Your task to perform on an android device: turn on notifications settings in the gmail app Image 0: 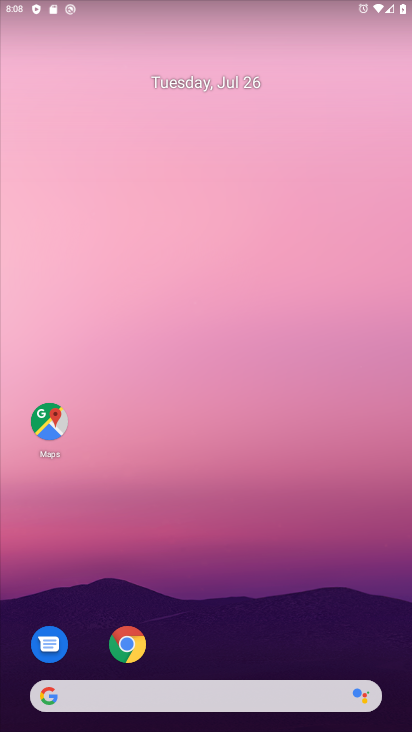
Step 0: drag from (259, 648) to (257, 303)
Your task to perform on an android device: turn on notifications settings in the gmail app Image 1: 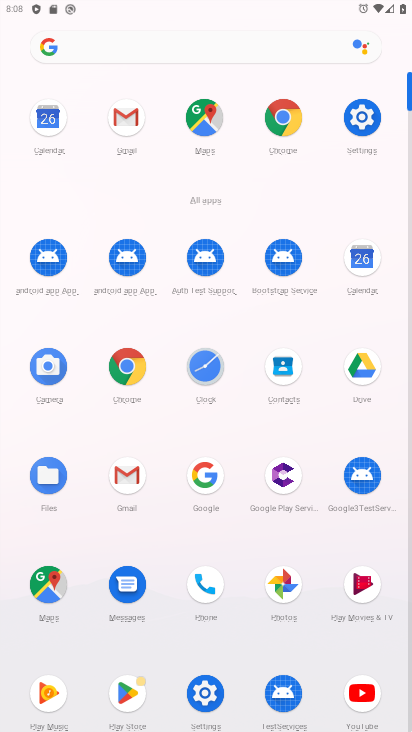
Step 1: click (112, 109)
Your task to perform on an android device: turn on notifications settings in the gmail app Image 2: 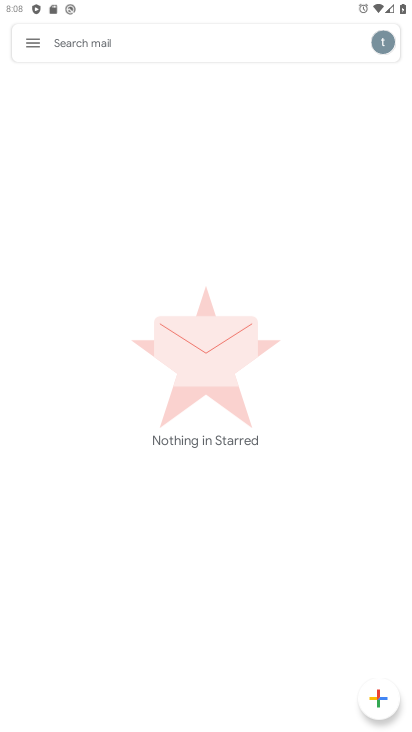
Step 2: click (23, 40)
Your task to perform on an android device: turn on notifications settings in the gmail app Image 3: 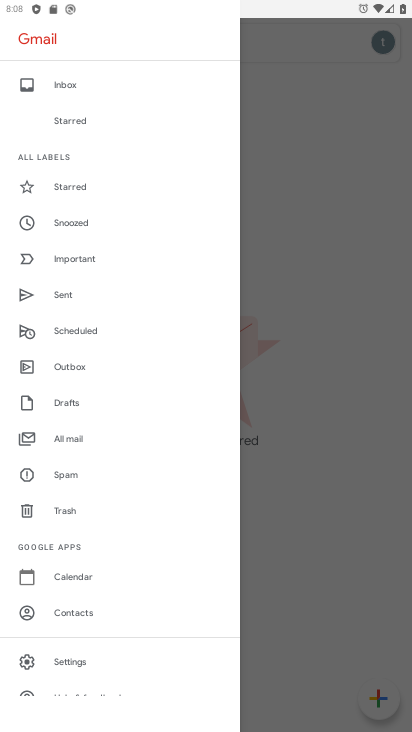
Step 3: click (70, 663)
Your task to perform on an android device: turn on notifications settings in the gmail app Image 4: 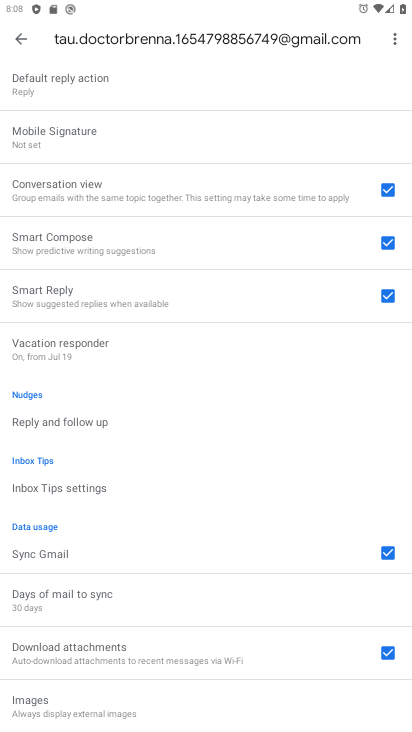
Step 4: drag from (108, 124) to (131, 422)
Your task to perform on an android device: turn on notifications settings in the gmail app Image 5: 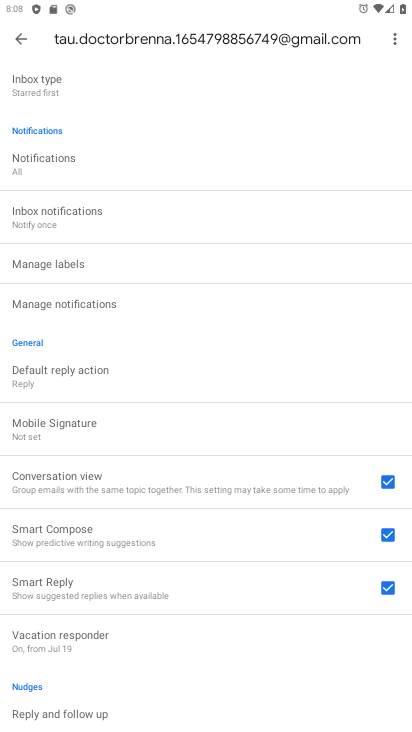
Step 5: click (84, 167)
Your task to perform on an android device: turn on notifications settings in the gmail app Image 6: 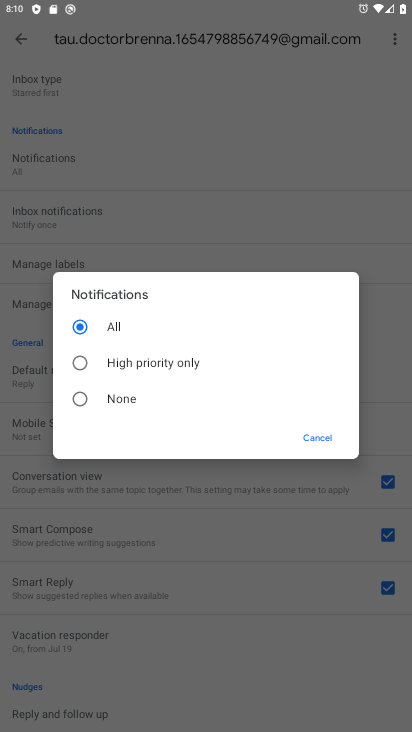
Step 6: task complete